Your task to perform on an android device: change timer sound Image 0: 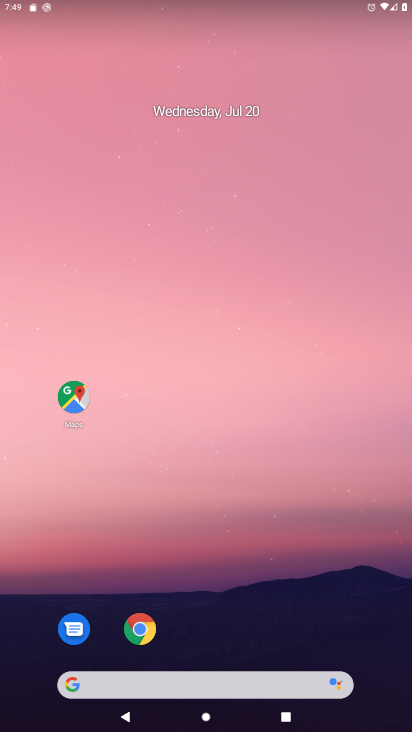
Step 0: press home button
Your task to perform on an android device: change timer sound Image 1: 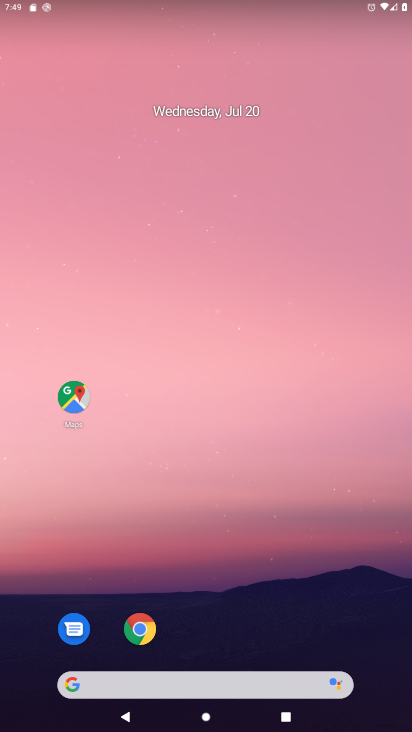
Step 1: drag from (323, 581) to (327, 62)
Your task to perform on an android device: change timer sound Image 2: 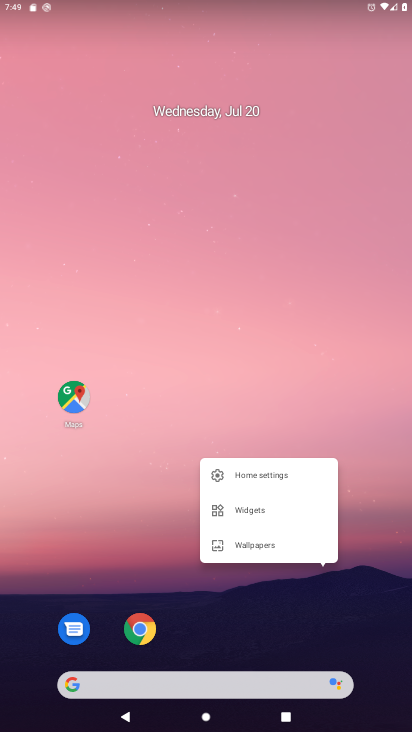
Step 2: click (230, 335)
Your task to perform on an android device: change timer sound Image 3: 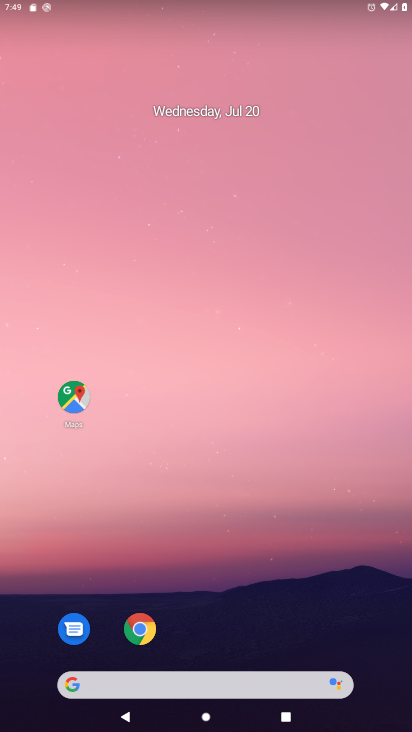
Step 3: drag from (257, 599) to (212, 127)
Your task to perform on an android device: change timer sound Image 4: 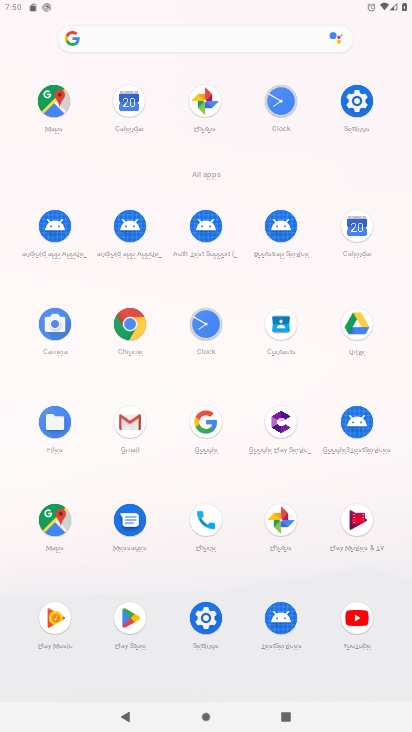
Step 4: click (214, 331)
Your task to perform on an android device: change timer sound Image 5: 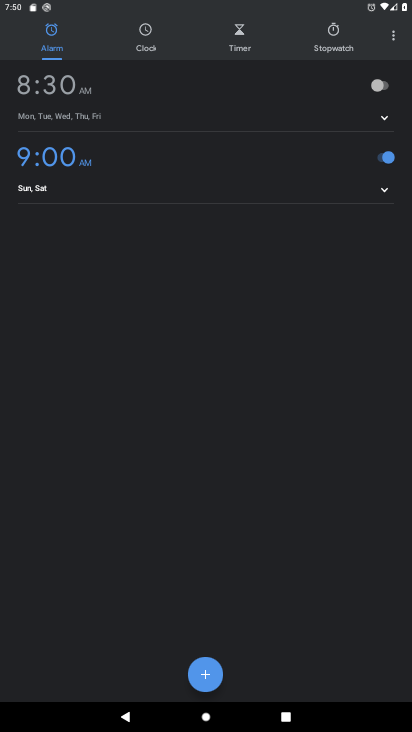
Step 5: click (396, 32)
Your task to perform on an android device: change timer sound Image 6: 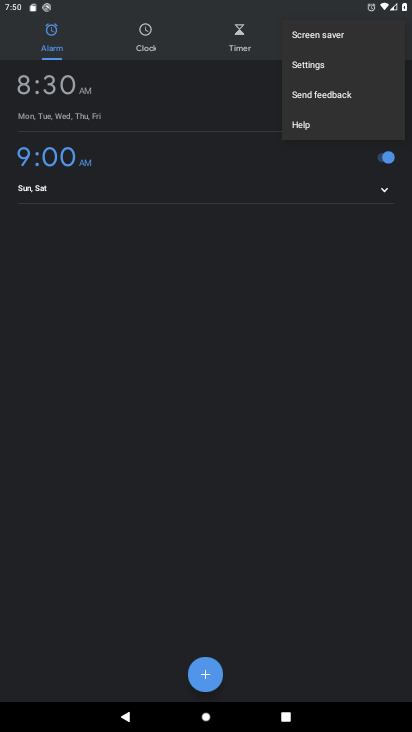
Step 6: click (314, 67)
Your task to perform on an android device: change timer sound Image 7: 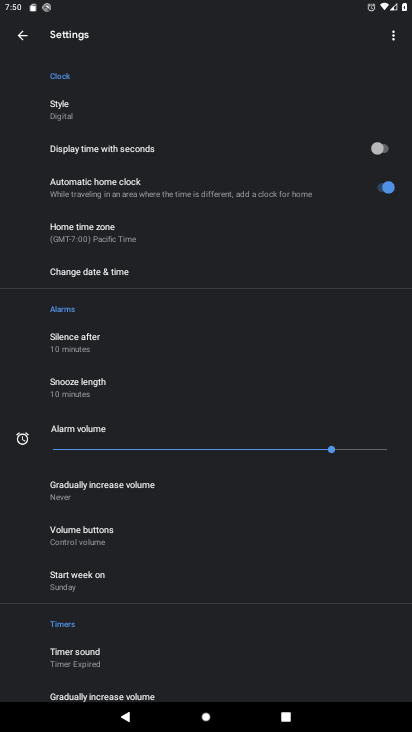
Step 7: click (115, 653)
Your task to perform on an android device: change timer sound Image 8: 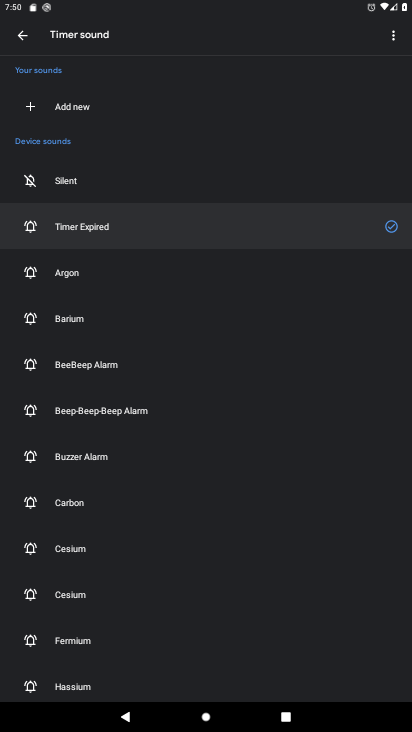
Step 8: click (99, 424)
Your task to perform on an android device: change timer sound Image 9: 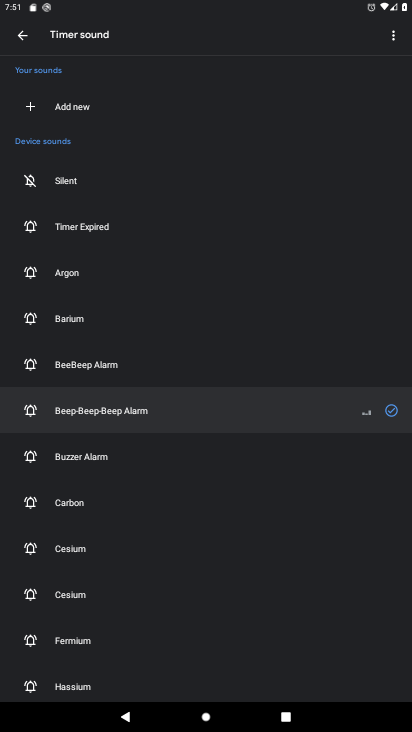
Step 9: task complete